Your task to perform on an android device: Go to privacy settings Image 0: 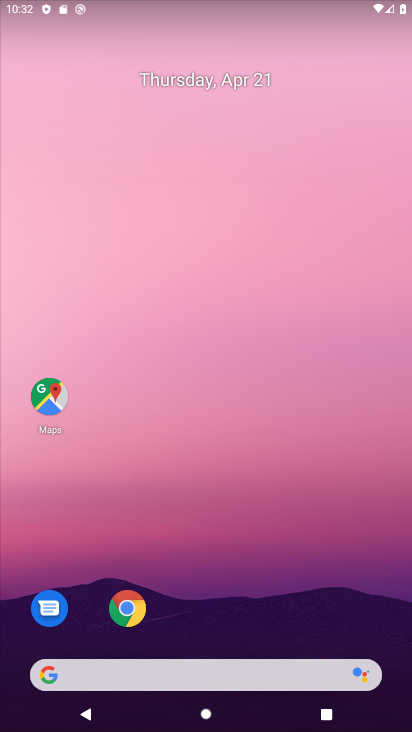
Step 0: drag from (246, 537) to (244, 21)
Your task to perform on an android device: Go to privacy settings Image 1: 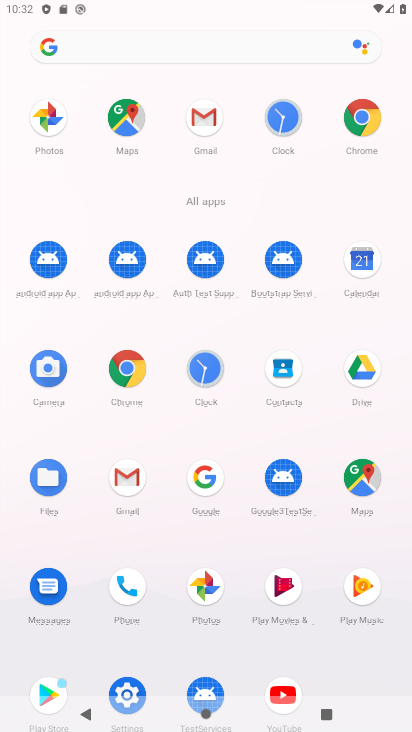
Step 1: drag from (238, 399) to (286, 195)
Your task to perform on an android device: Go to privacy settings Image 2: 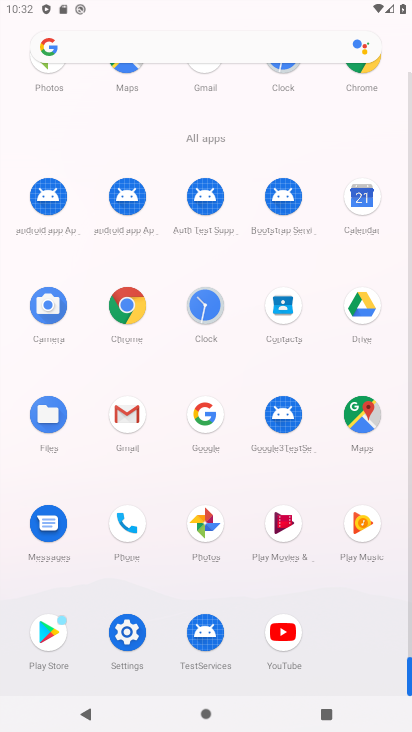
Step 2: click (128, 632)
Your task to perform on an android device: Go to privacy settings Image 3: 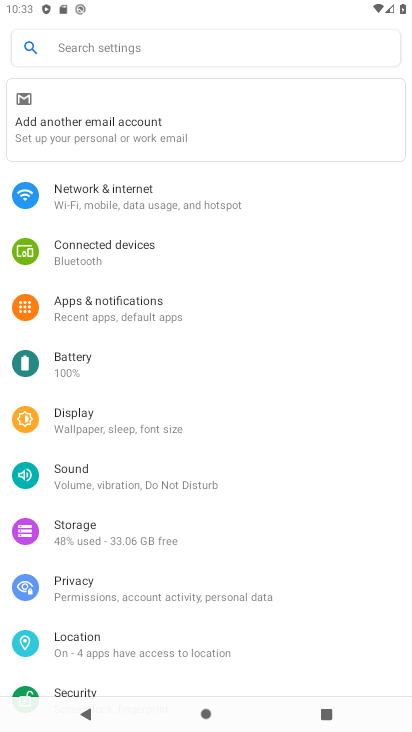
Step 3: click (107, 599)
Your task to perform on an android device: Go to privacy settings Image 4: 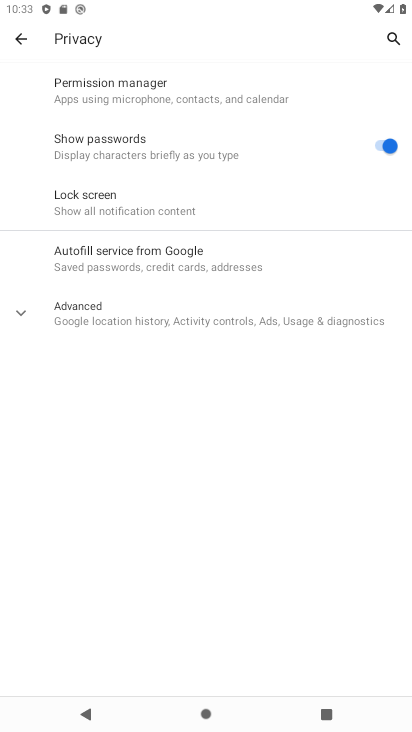
Step 4: task complete